Your task to perform on an android device: turn on data saver in the chrome app Image 0: 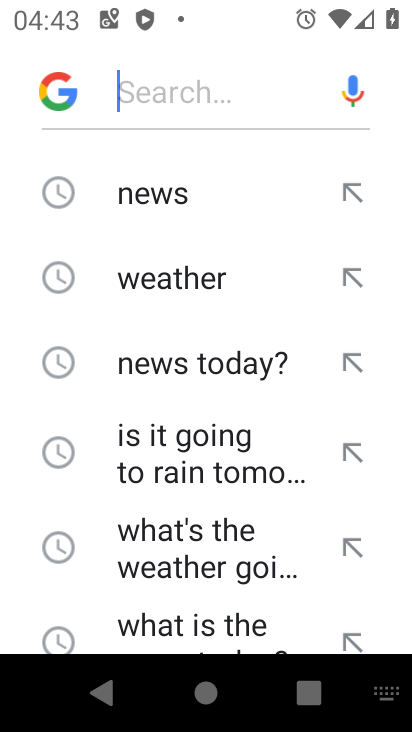
Step 0: press home button
Your task to perform on an android device: turn on data saver in the chrome app Image 1: 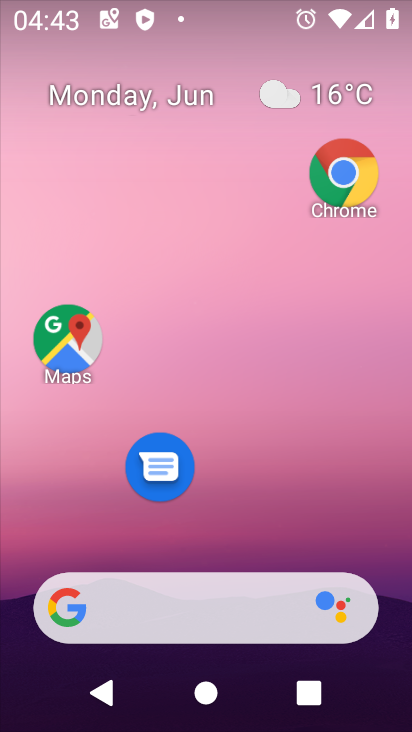
Step 1: drag from (240, 560) to (259, 7)
Your task to perform on an android device: turn on data saver in the chrome app Image 2: 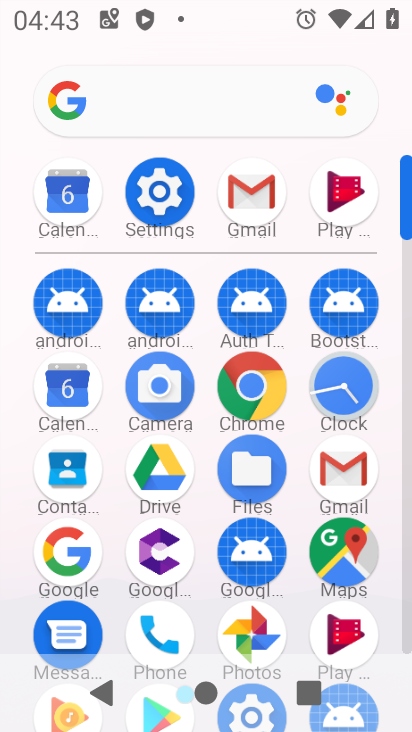
Step 2: click (240, 383)
Your task to perform on an android device: turn on data saver in the chrome app Image 3: 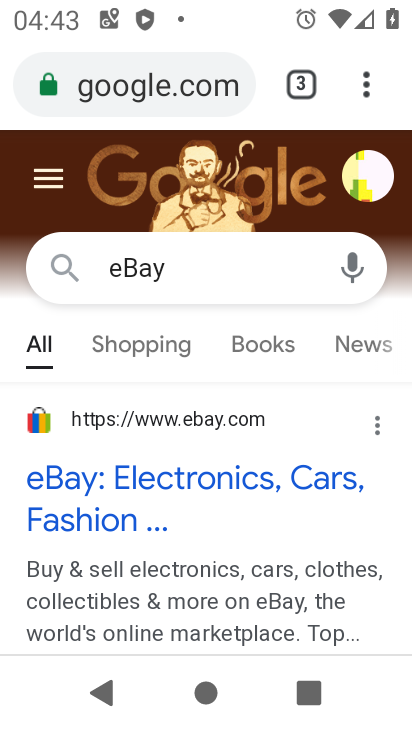
Step 3: click (365, 99)
Your task to perform on an android device: turn on data saver in the chrome app Image 4: 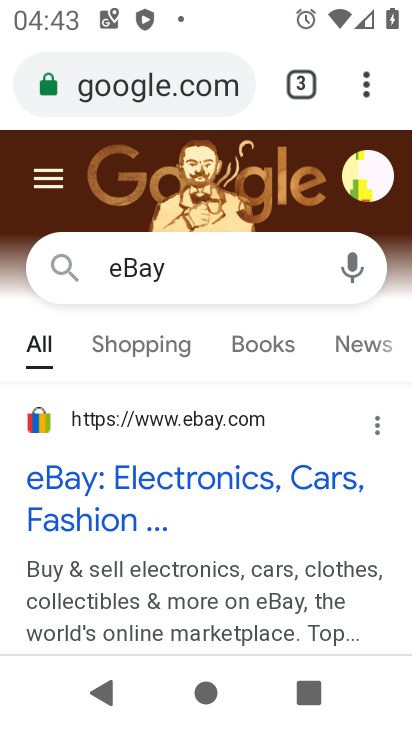
Step 4: click (372, 93)
Your task to perform on an android device: turn on data saver in the chrome app Image 5: 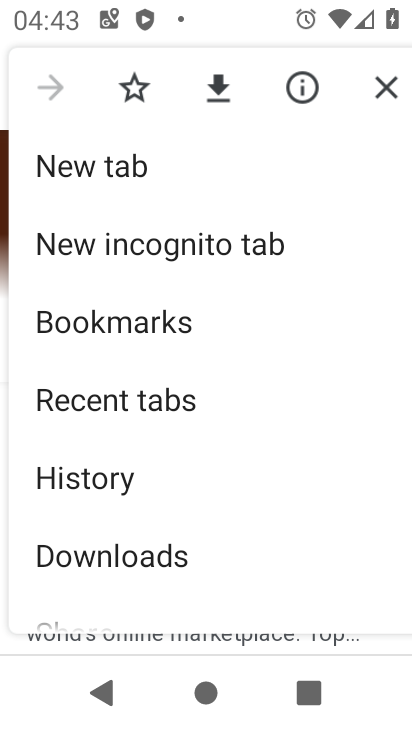
Step 5: drag from (218, 540) to (234, 198)
Your task to perform on an android device: turn on data saver in the chrome app Image 6: 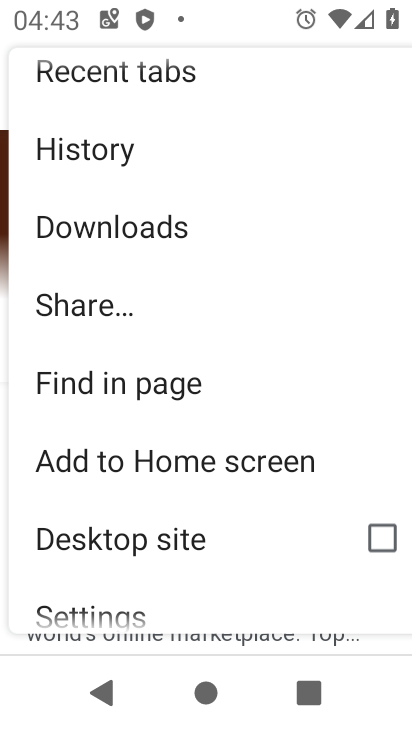
Step 6: drag from (164, 537) to (221, 192)
Your task to perform on an android device: turn on data saver in the chrome app Image 7: 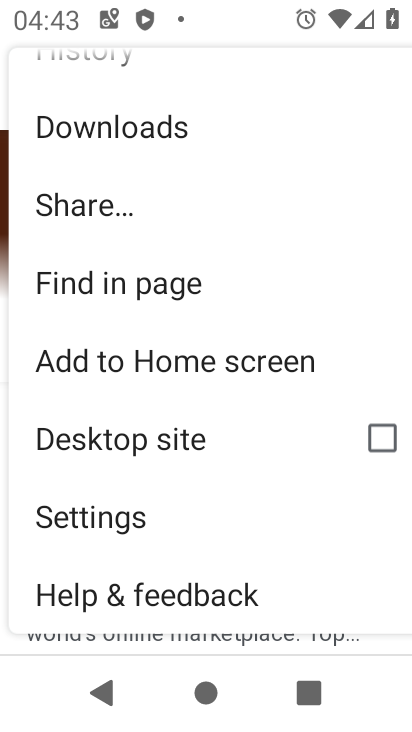
Step 7: click (123, 522)
Your task to perform on an android device: turn on data saver in the chrome app Image 8: 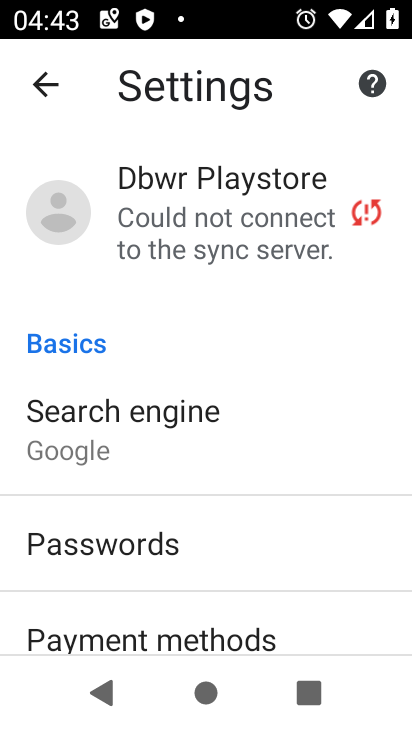
Step 8: drag from (164, 540) to (230, 192)
Your task to perform on an android device: turn on data saver in the chrome app Image 9: 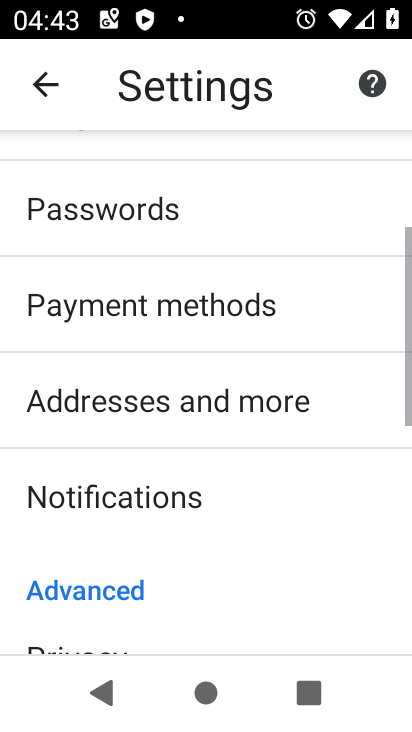
Step 9: drag from (217, 562) to (263, 193)
Your task to perform on an android device: turn on data saver in the chrome app Image 10: 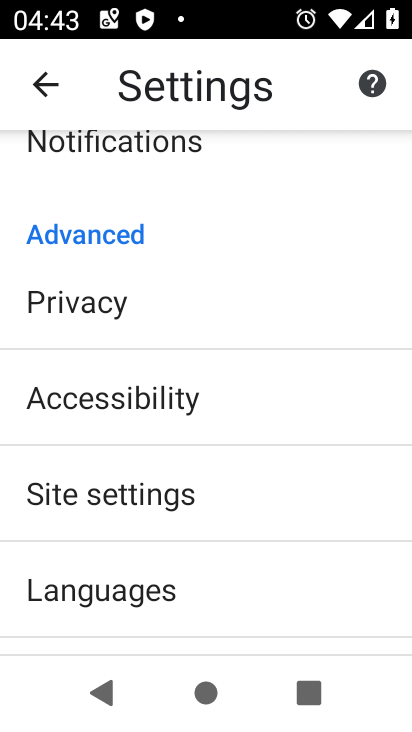
Step 10: drag from (134, 576) to (200, 262)
Your task to perform on an android device: turn on data saver in the chrome app Image 11: 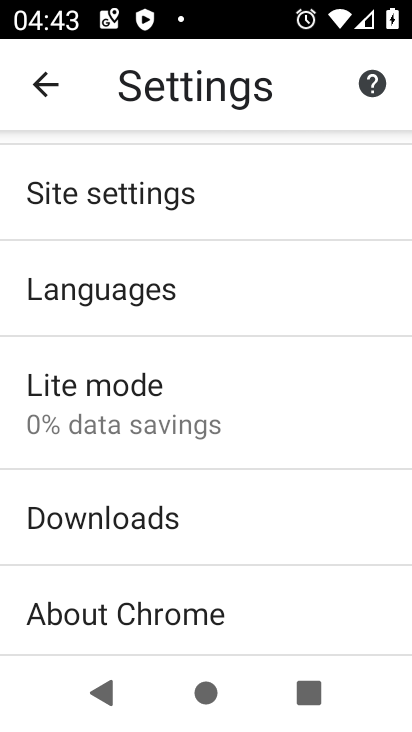
Step 11: click (112, 422)
Your task to perform on an android device: turn on data saver in the chrome app Image 12: 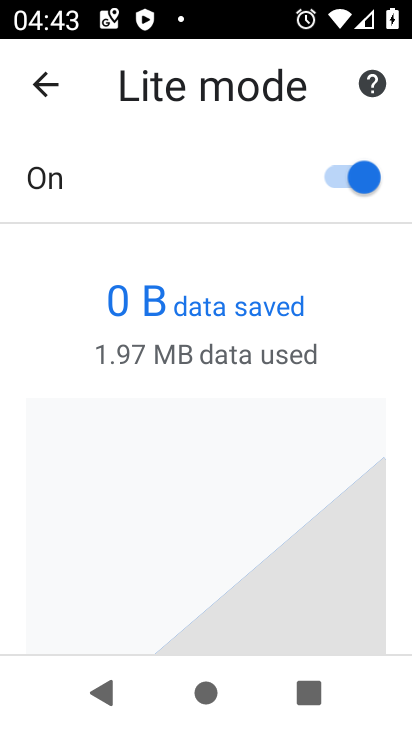
Step 12: task complete